Your task to perform on an android device: Show the shopping cart on walmart.com. Search for macbook pro 15 inch on walmart.com, select the first entry, add it to the cart, then select checkout. Image 0: 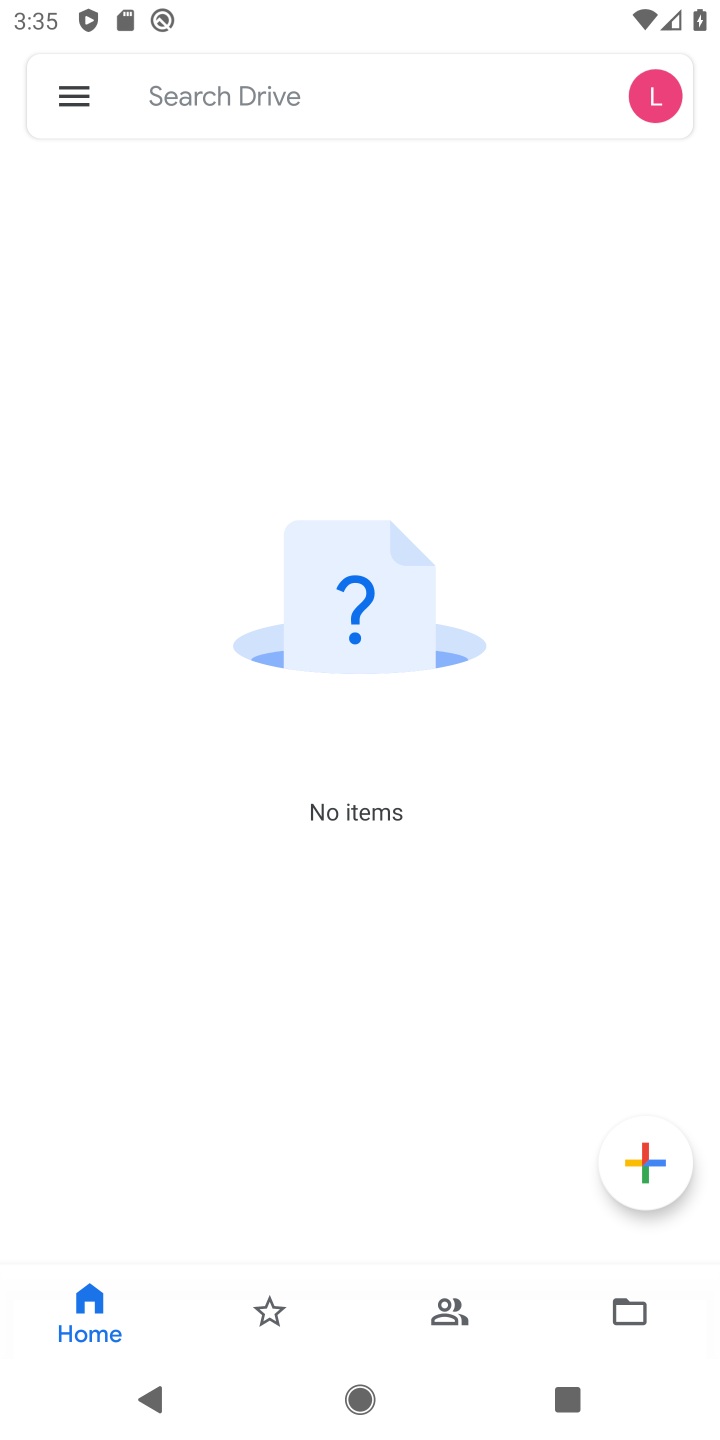
Step 0: task complete